Your task to perform on an android device: What is the recent news? Image 0: 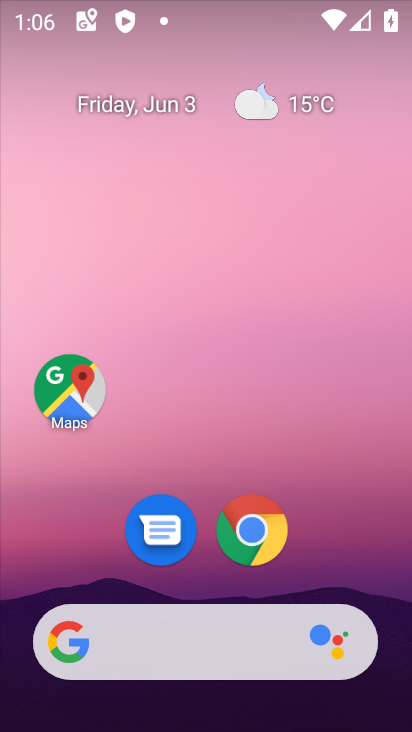
Step 0: click (228, 649)
Your task to perform on an android device: What is the recent news? Image 1: 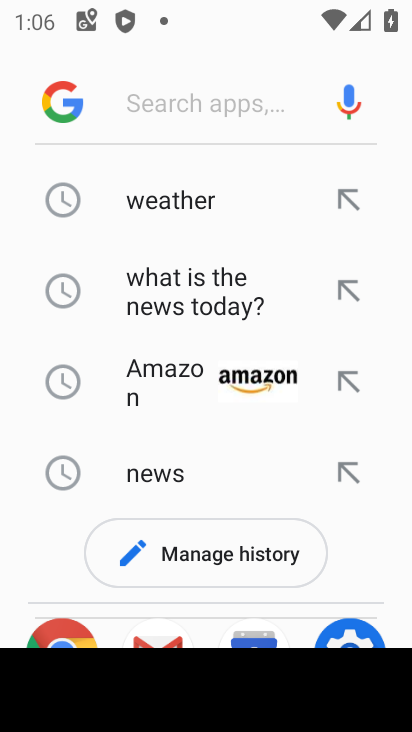
Step 1: type "recent news?"
Your task to perform on an android device: What is the recent news? Image 2: 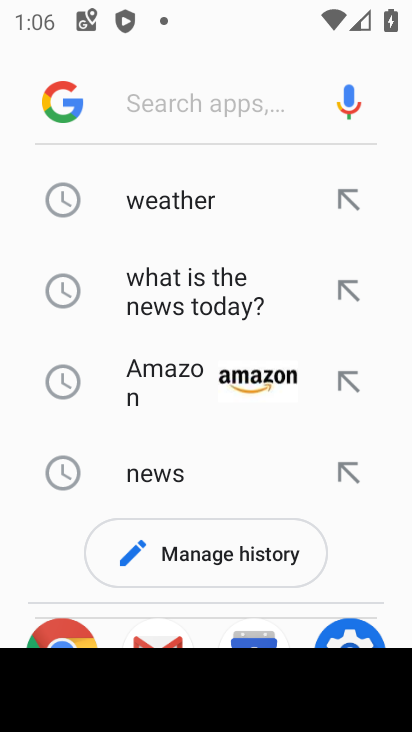
Step 2: click (199, 110)
Your task to perform on an android device: What is the recent news? Image 3: 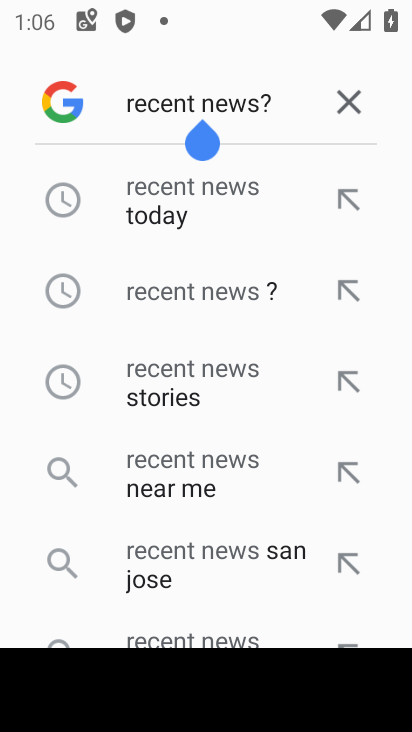
Step 3: click (195, 294)
Your task to perform on an android device: What is the recent news? Image 4: 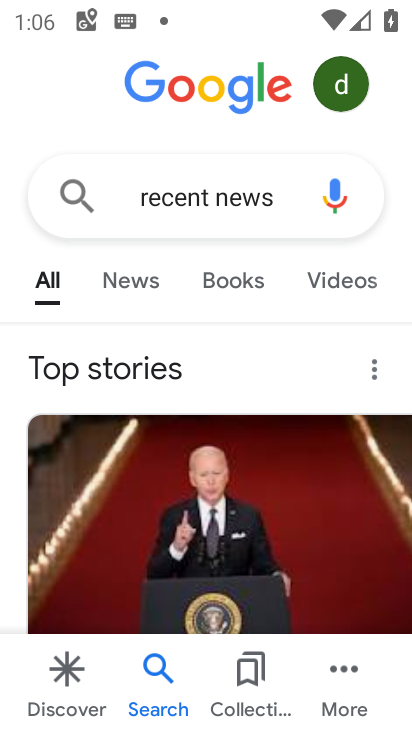
Step 4: task complete